Your task to perform on an android device: toggle sleep mode Image 0: 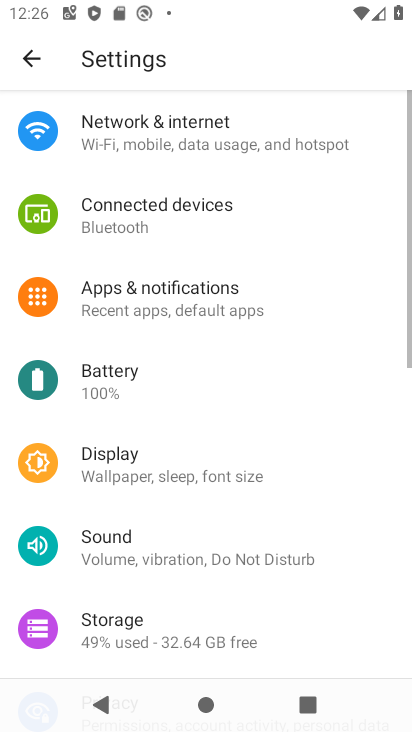
Step 0: press home button
Your task to perform on an android device: toggle sleep mode Image 1: 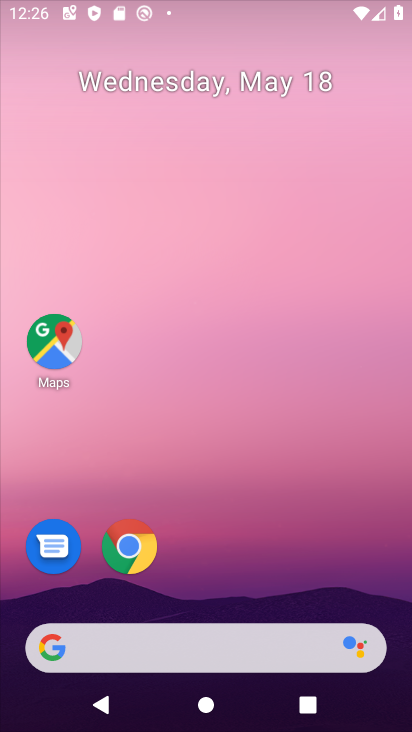
Step 1: drag from (366, 520) to (390, 182)
Your task to perform on an android device: toggle sleep mode Image 2: 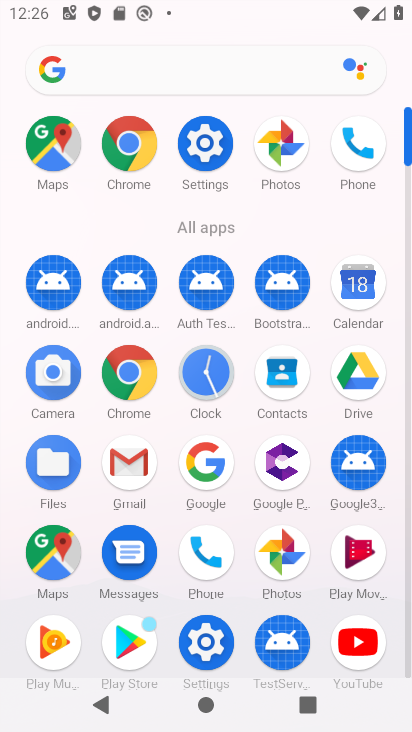
Step 2: click (212, 142)
Your task to perform on an android device: toggle sleep mode Image 3: 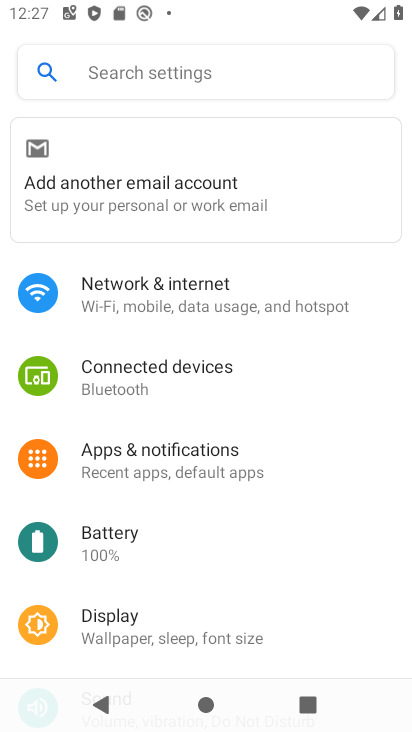
Step 3: click (108, 626)
Your task to perform on an android device: toggle sleep mode Image 4: 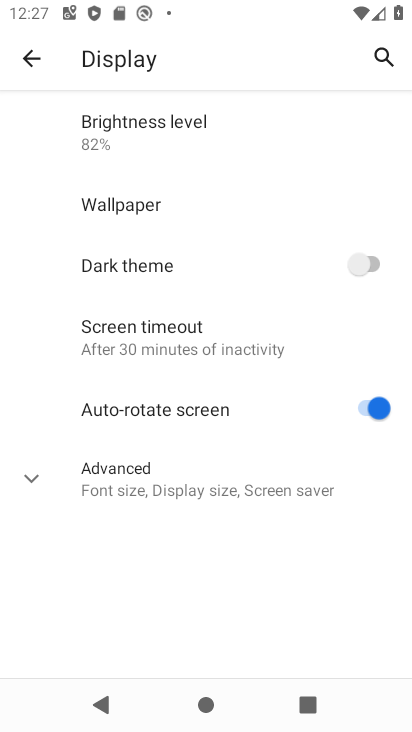
Step 4: task complete